Your task to perform on an android device: change alarm snooze length Image 0: 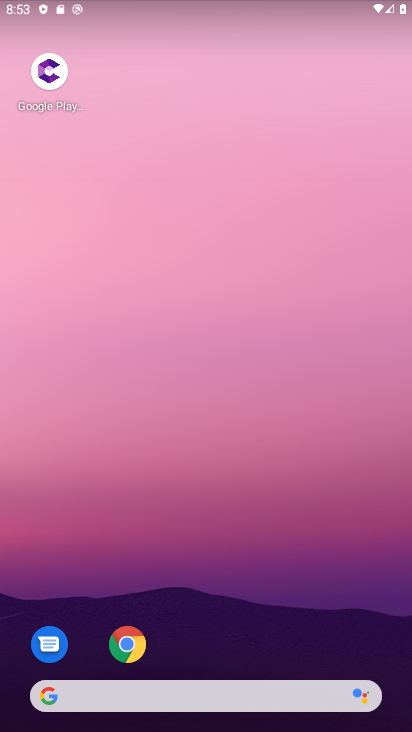
Step 0: drag from (240, 610) to (268, 1)
Your task to perform on an android device: change alarm snooze length Image 1: 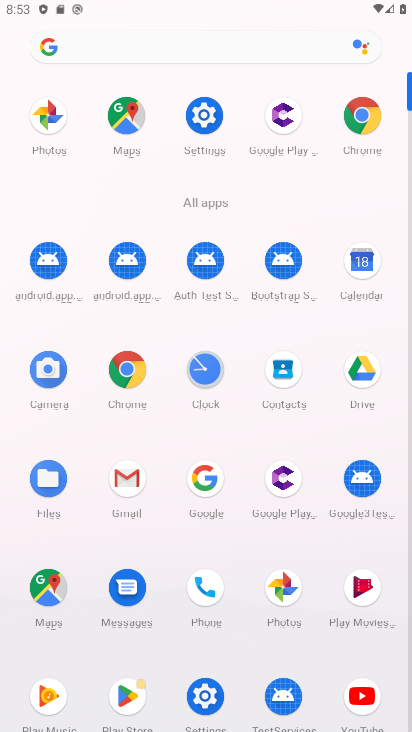
Step 1: click (197, 369)
Your task to perform on an android device: change alarm snooze length Image 2: 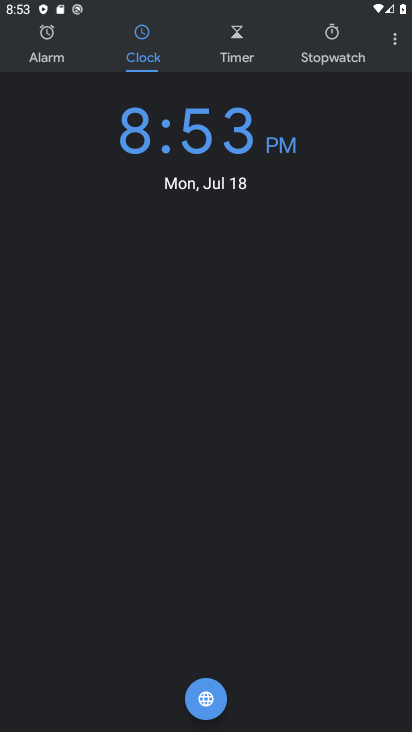
Step 2: click (397, 33)
Your task to perform on an android device: change alarm snooze length Image 3: 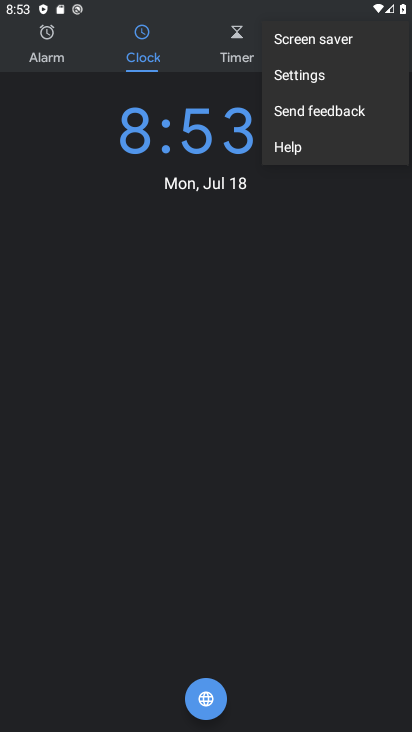
Step 3: click (285, 80)
Your task to perform on an android device: change alarm snooze length Image 4: 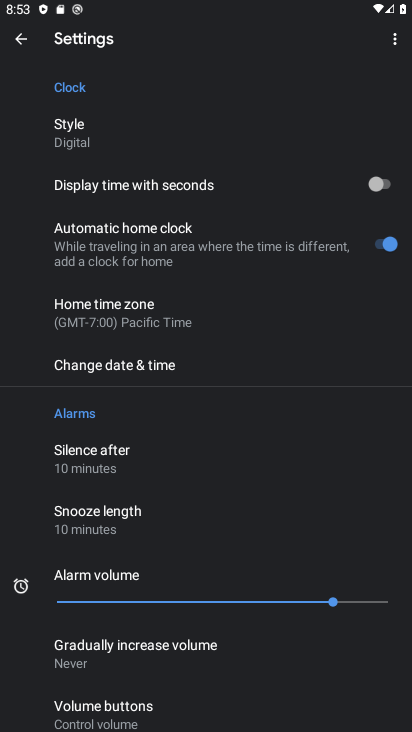
Step 4: click (111, 523)
Your task to perform on an android device: change alarm snooze length Image 5: 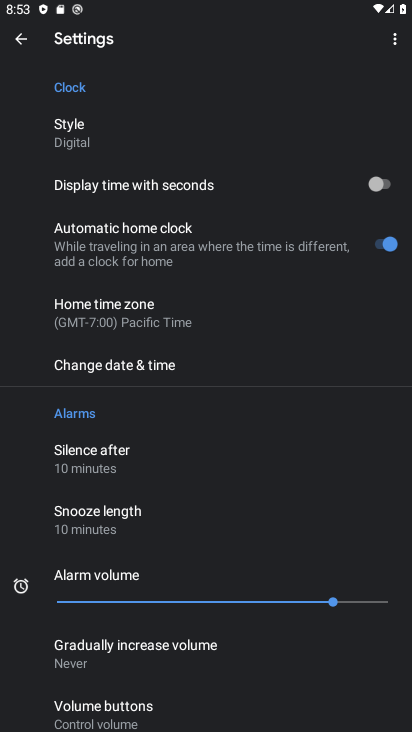
Step 5: click (113, 523)
Your task to perform on an android device: change alarm snooze length Image 6: 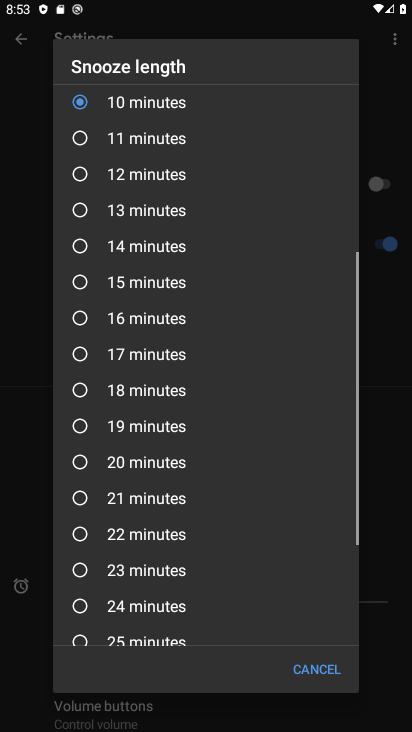
Step 6: click (80, 180)
Your task to perform on an android device: change alarm snooze length Image 7: 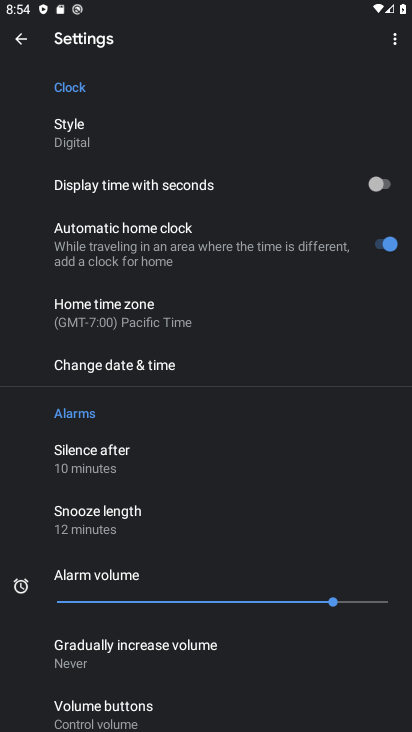
Step 7: task complete